Your task to perform on an android device: turn off improve location accuracy Image 0: 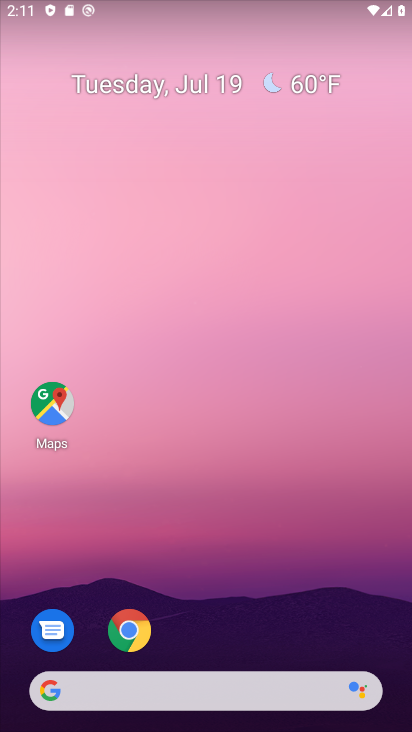
Step 0: drag from (313, 666) to (259, 278)
Your task to perform on an android device: turn off improve location accuracy Image 1: 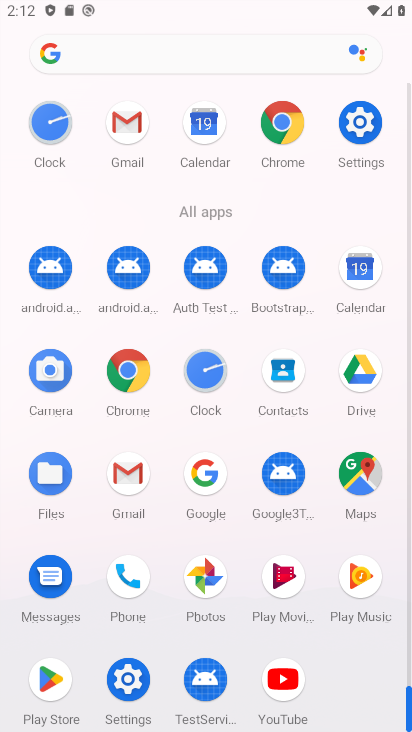
Step 1: click (356, 116)
Your task to perform on an android device: turn off improve location accuracy Image 2: 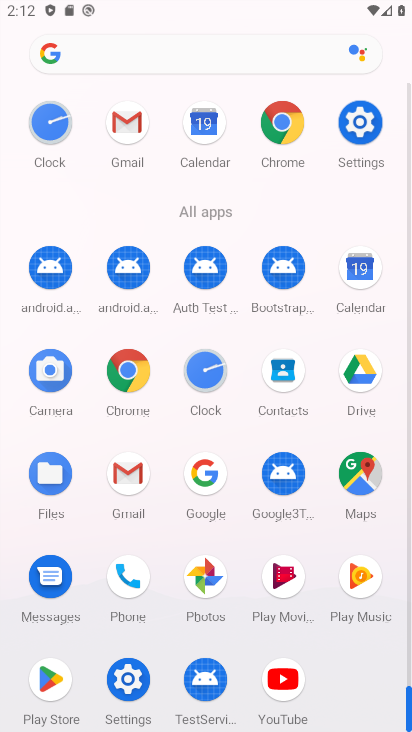
Step 2: click (356, 115)
Your task to perform on an android device: turn off improve location accuracy Image 3: 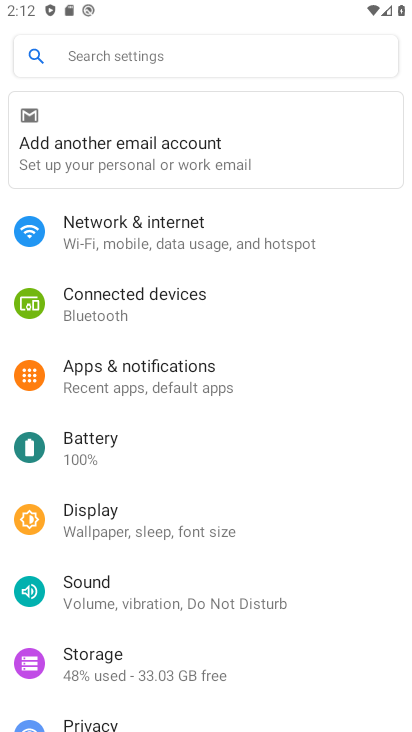
Step 3: drag from (174, 587) to (166, 268)
Your task to perform on an android device: turn off improve location accuracy Image 4: 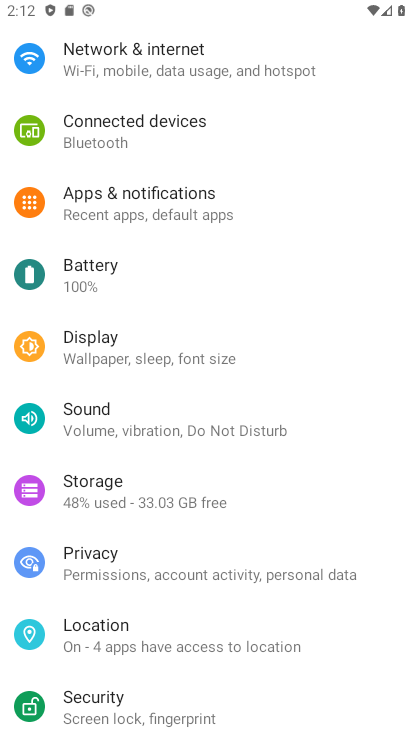
Step 4: drag from (162, 572) to (144, 438)
Your task to perform on an android device: turn off improve location accuracy Image 5: 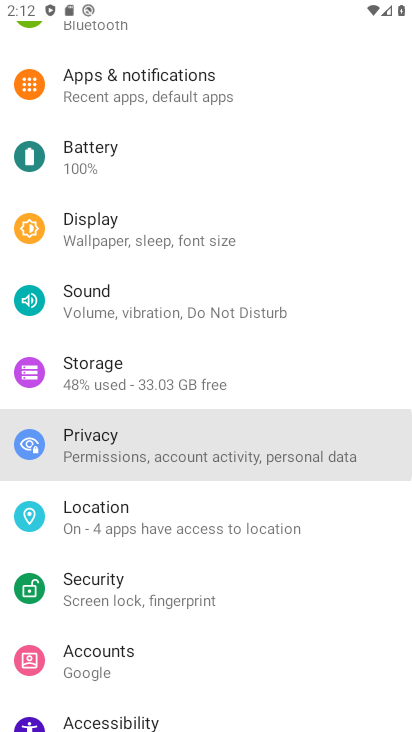
Step 5: drag from (175, 591) to (197, 353)
Your task to perform on an android device: turn off improve location accuracy Image 6: 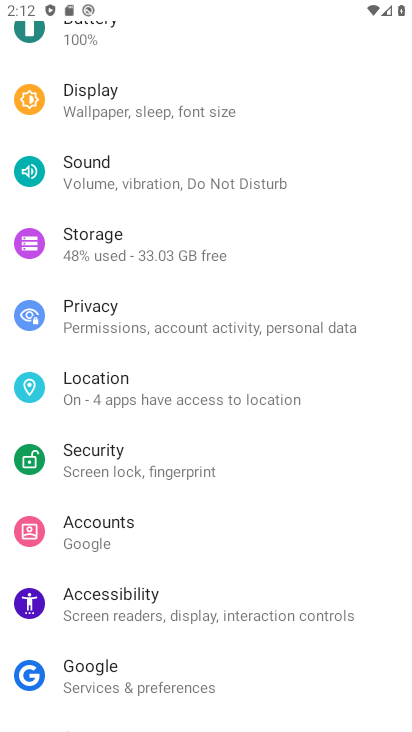
Step 6: click (144, 394)
Your task to perform on an android device: turn off improve location accuracy Image 7: 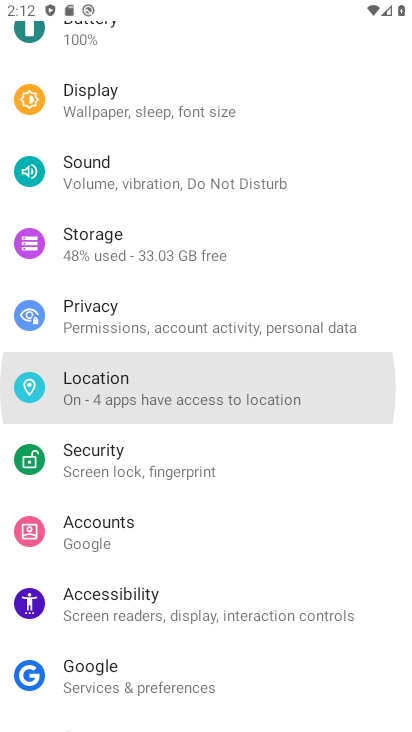
Step 7: click (146, 397)
Your task to perform on an android device: turn off improve location accuracy Image 8: 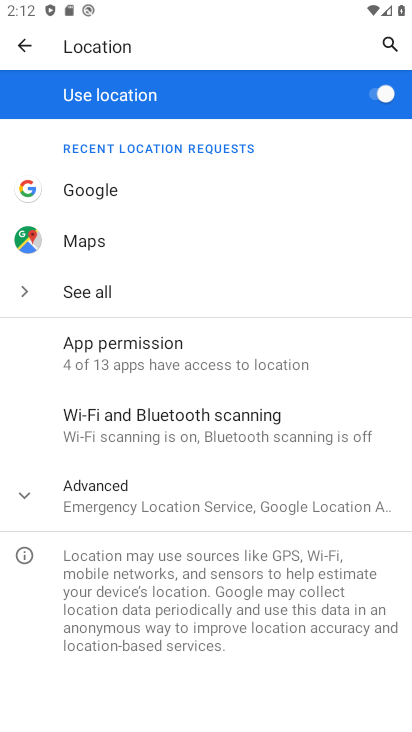
Step 8: click (117, 512)
Your task to perform on an android device: turn off improve location accuracy Image 9: 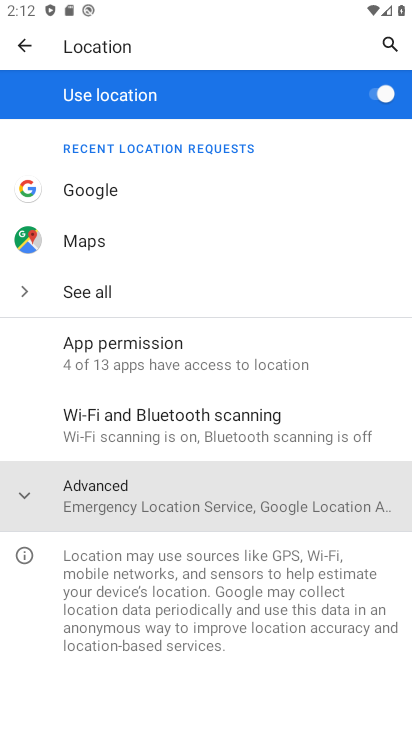
Step 9: click (119, 511)
Your task to perform on an android device: turn off improve location accuracy Image 10: 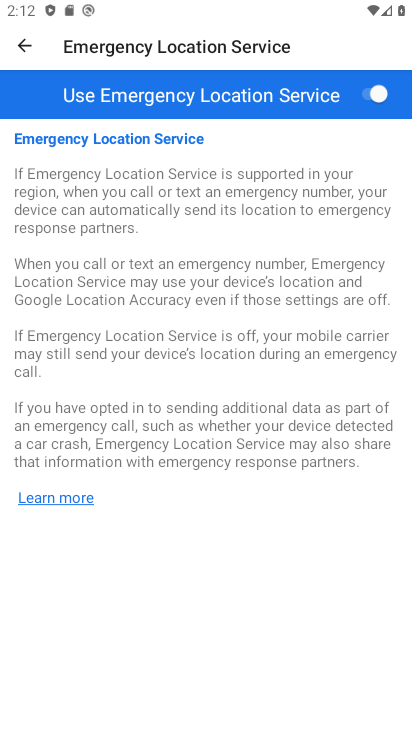
Step 10: click (22, 40)
Your task to perform on an android device: turn off improve location accuracy Image 11: 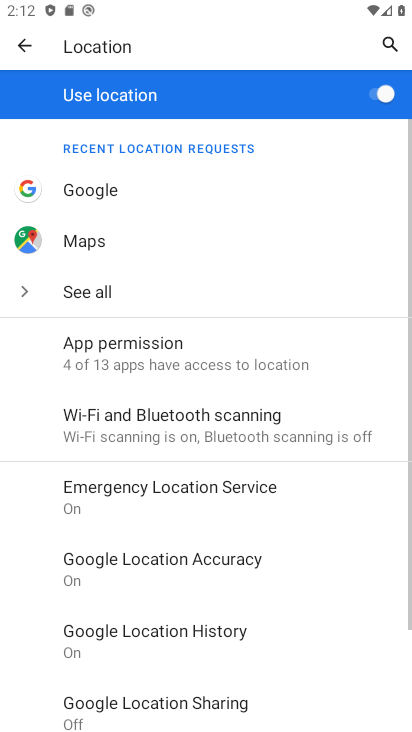
Step 11: click (118, 565)
Your task to perform on an android device: turn off improve location accuracy Image 12: 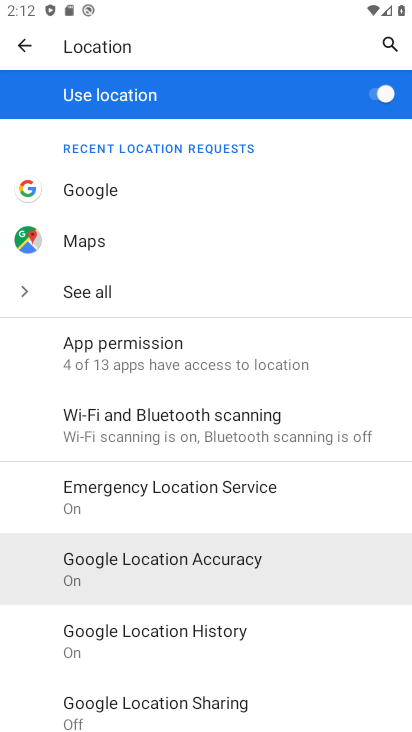
Step 12: click (117, 564)
Your task to perform on an android device: turn off improve location accuracy Image 13: 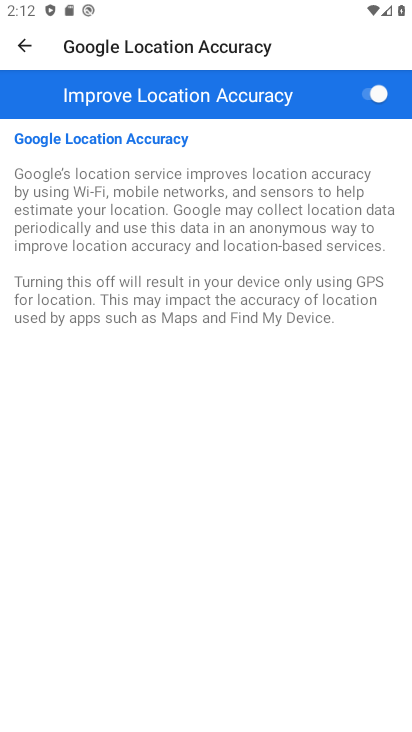
Step 13: task complete